Your task to perform on an android device: check battery use Image 0: 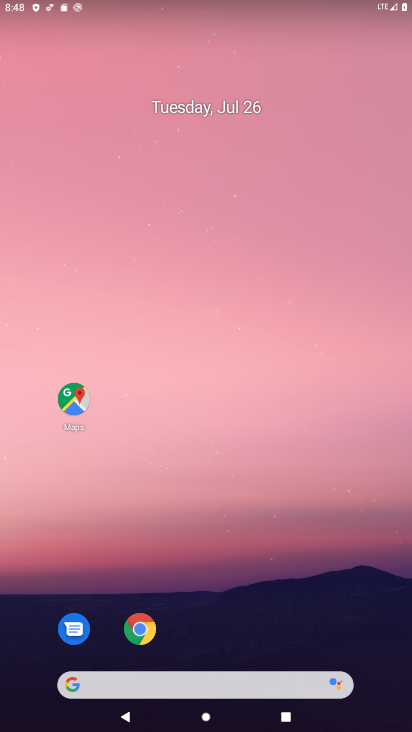
Step 0: drag from (217, 643) to (219, 2)
Your task to perform on an android device: check battery use Image 1: 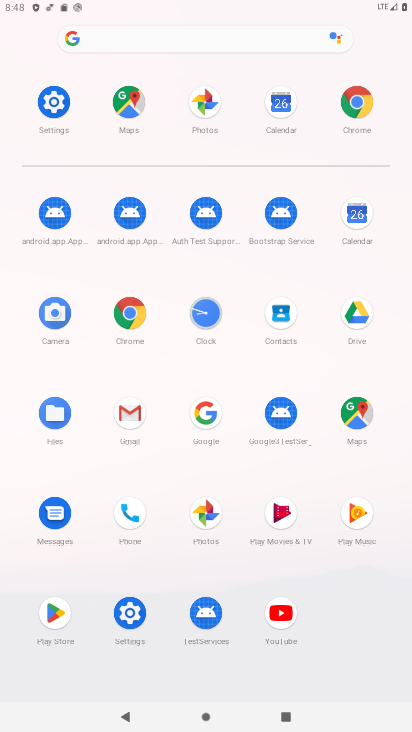
Step 1: click (47, 99)
Your task to perform on an android device: check battery use Image 2: 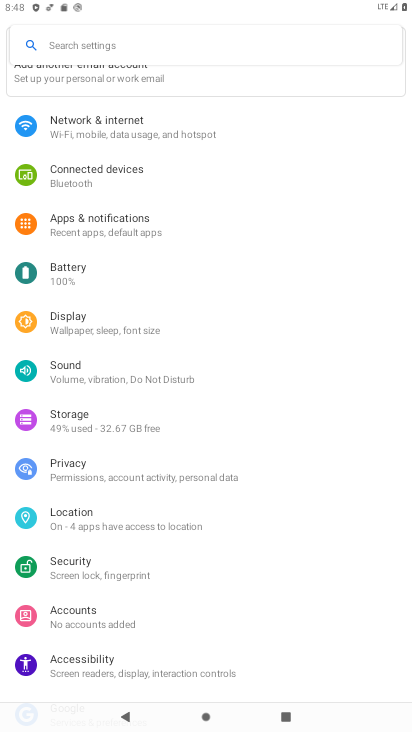
Step 2: click (78, 269)
Your task to perform on an android device: check battery use Image 3: 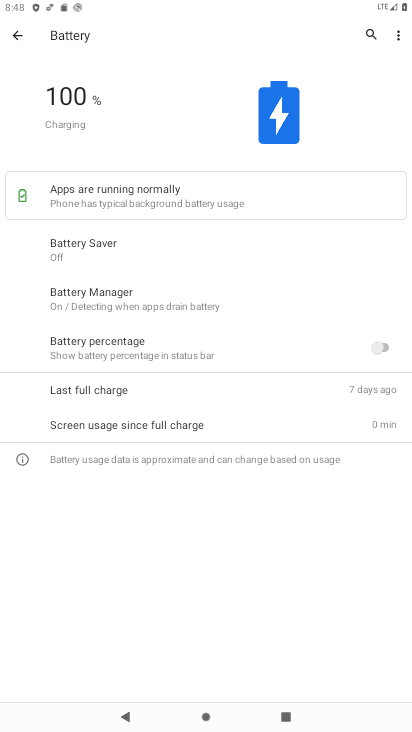
Step 3: click (391, 29)
Your task to perform on an android device: check battery use Image 4: 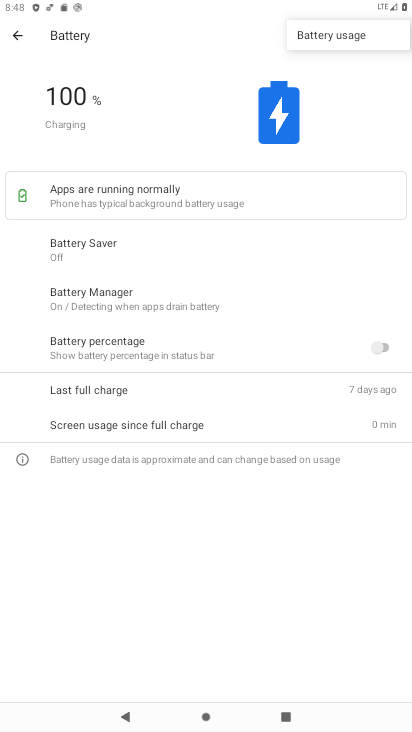
Step 4: click (372, 36)
Your task to perform on an android device: check battery use Image 5: 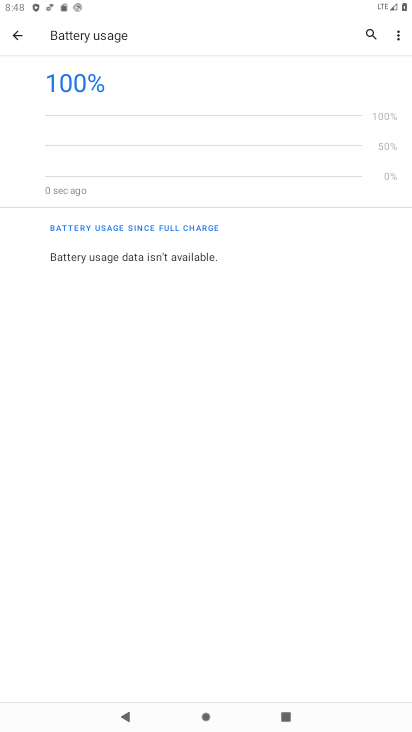
Step 5: task complete